Your task to perform on an android device: turn vacation reply on in the gmail app Image 0: 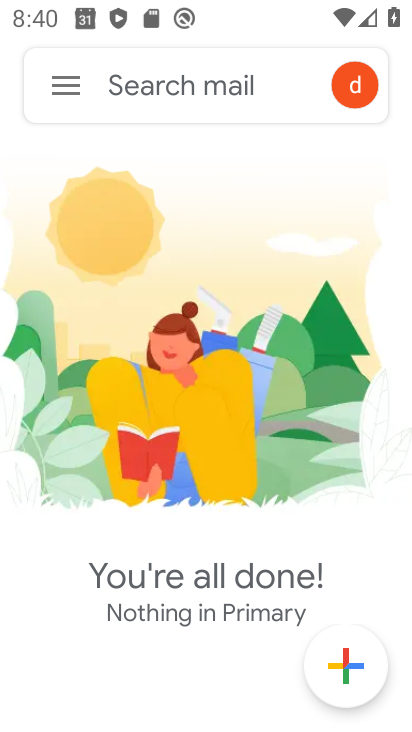
Step 0: press back button
Your task to perform on an android device: turn vacation reply on in the gmail app Image 1: 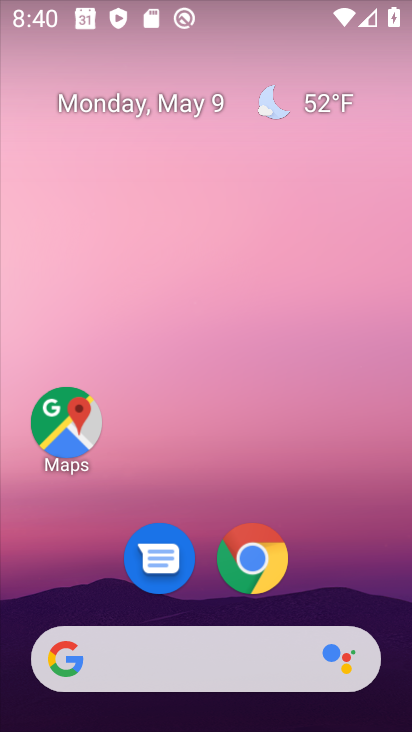
Step 1: drag from (194, 602) to (305, 12)
Your task to perform on an android device: turn vacation reply on in the gmail app Image 2: 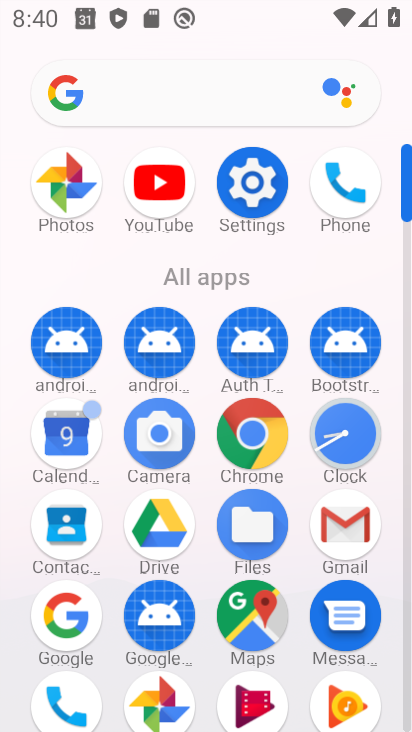
Step 2: click (337, 514)
Your task to perform on an android device: turn vacation reply on in the gmail app Image 3: 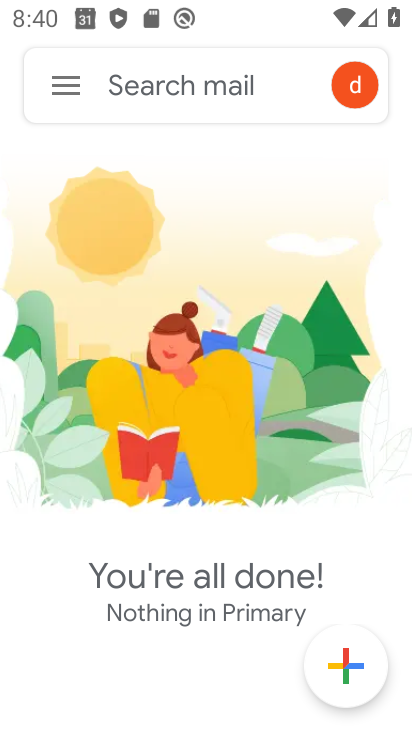
Step 3: click (61, 87)
Your task to perform on an android device: turn vacation reply on in the gmail app Image 4: 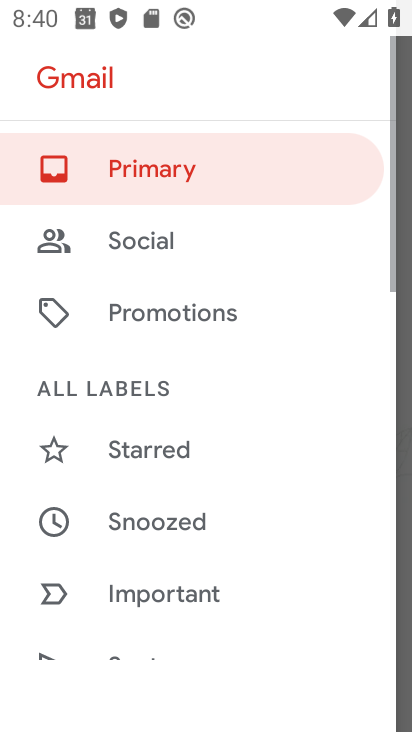
Step 4: drag from (170, 600) to (259, 102)
Your task to perform on an android device: turn vacation reply on in the gmail app Image 5: 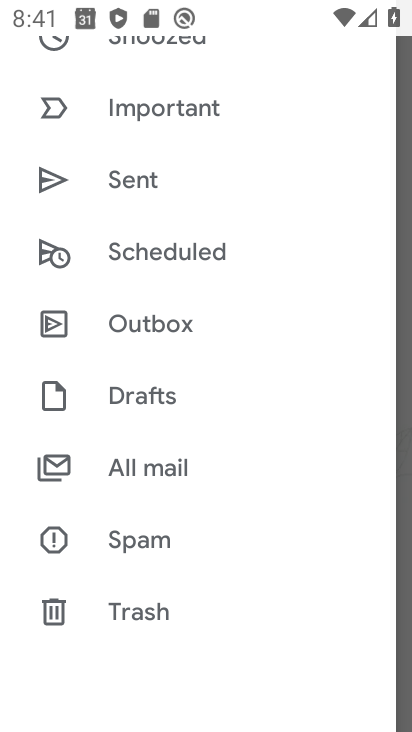
Step 5: drag from (173, 544) to (250, 118)
Your task to perform on an android device: turn vacation reply on in the gmail app Image 6: 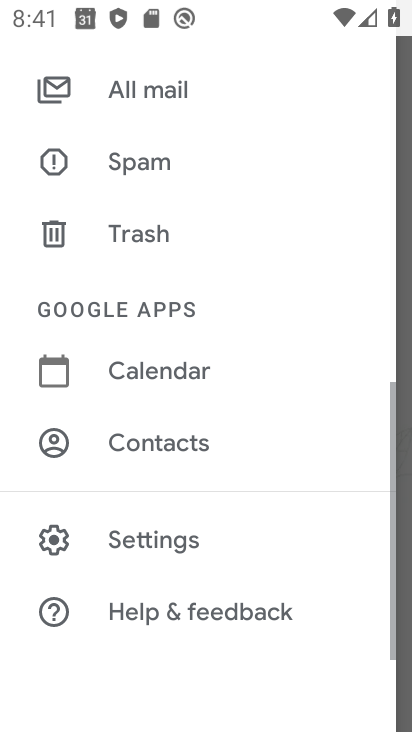
Step 6: click (146, 528)
Your task to perform on an android device: turn vacation reply on in the gmail app Image 7: 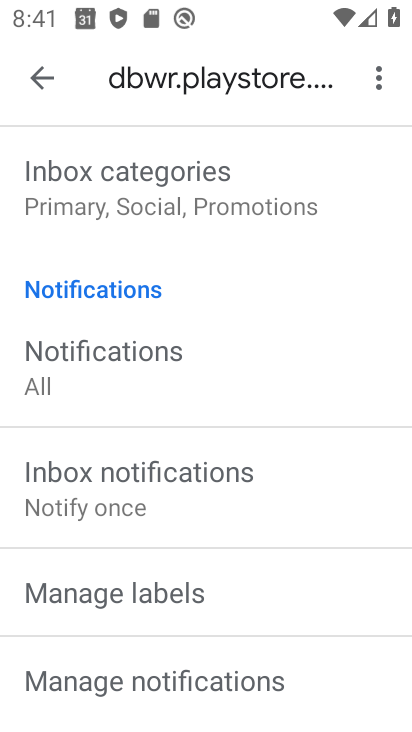
Step 7: drag from (149, 618) to (244, 101)
Your task to perform on an android device: turn vacation reply on in the gmail app Image 8: 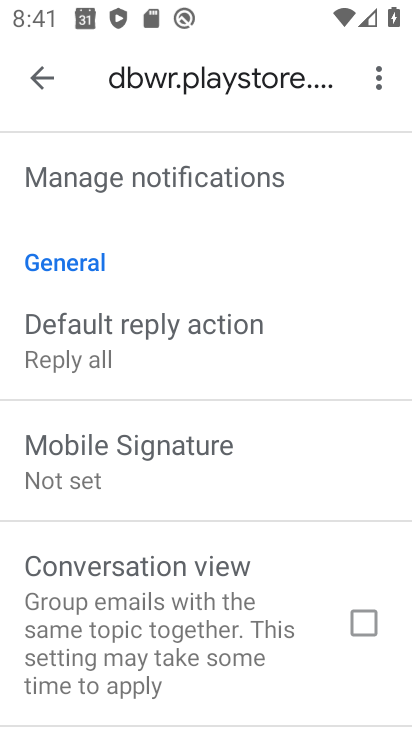
Step 8: drag from (186, 615) to (310, 136)
Your task to perform on an android device: turn vacation reply on in the gmail app Image 9: 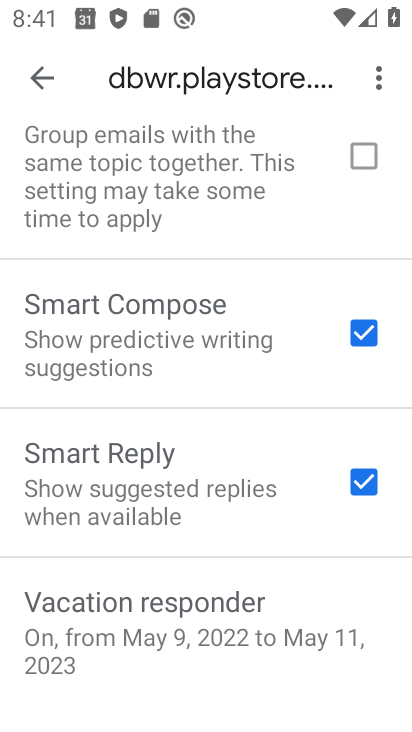
Step 9: click (174, 623)
Your task to perform on an android device: turn vacation reply on in the gmail app Image 10: 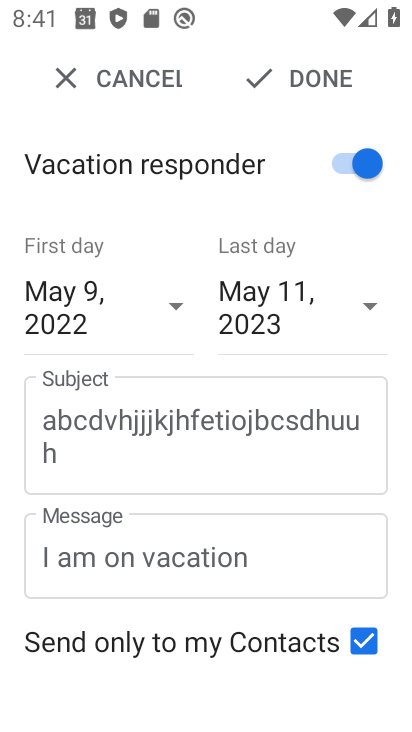
Step 10: task complete